Your task to perform on an android device: What is the news today? Image 0: 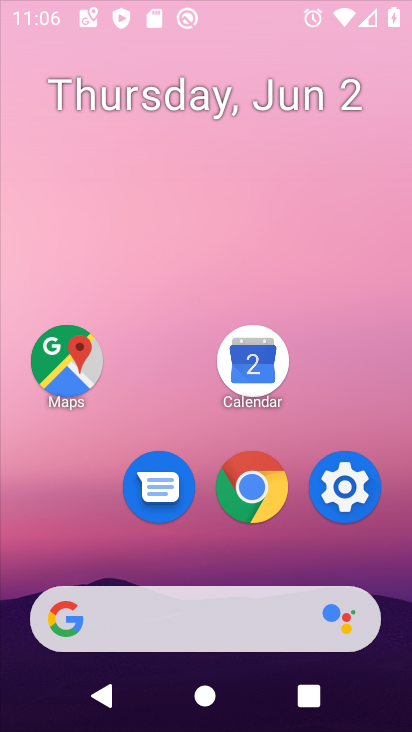
Step 0: press home button
Your task to perform on an android device: What is the news today? Image 1: 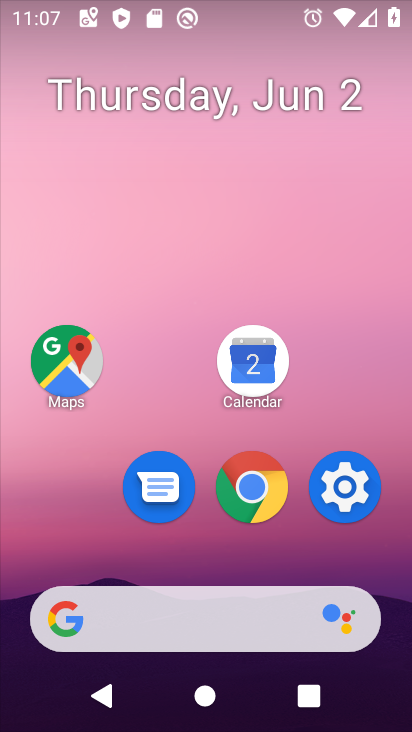
Step 1: click (190, 603)
Your task to perform on an android device: What is the news today? Image 2: 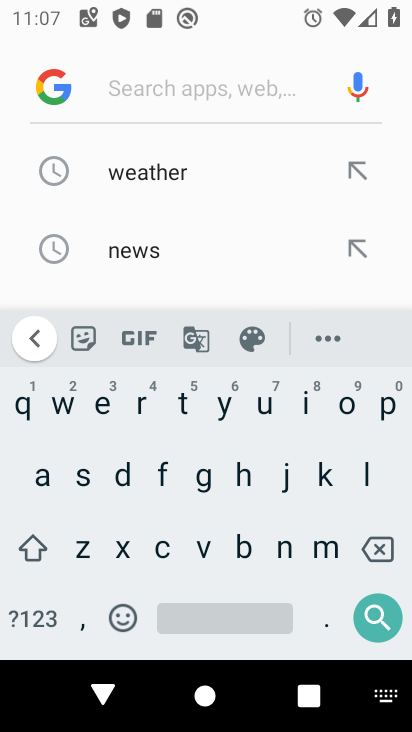
Step 2: click (134, 249)
Your task to perform on an android device: What is the news today? Image 3: 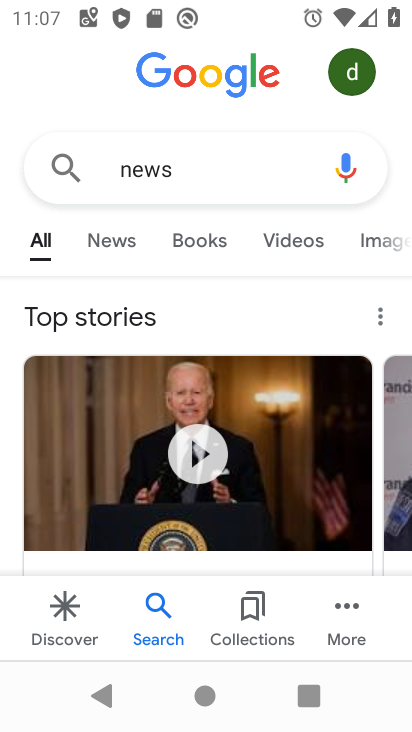
Step 3: task complete